Your task to perform on an android device: find snoozed emails in the gmail app Image 0: 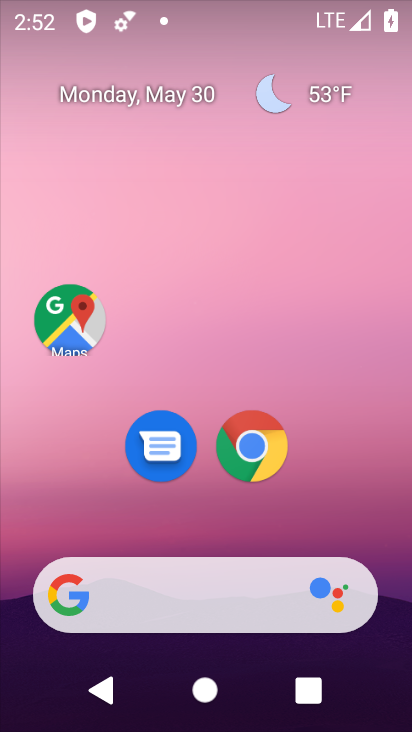
Step 0: drag from (338, 499) to (178, 47)
Your task to perform on an android device: find snoozed emails in the gmail app Image 1: 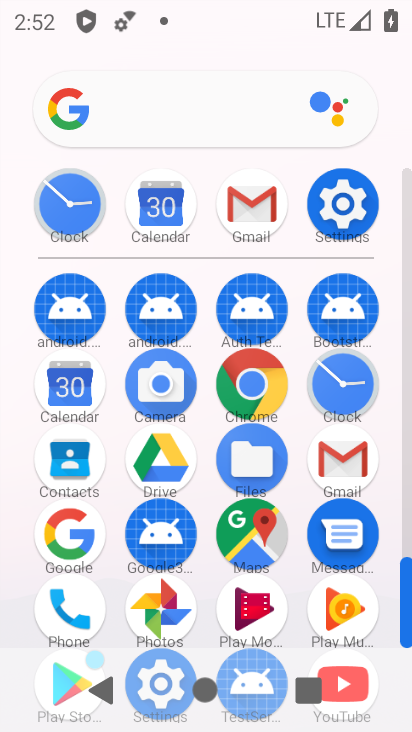
Step 1: click (250, 206)
Your task to perform on an android device: find snoozed emails in the gmail app Image 2: 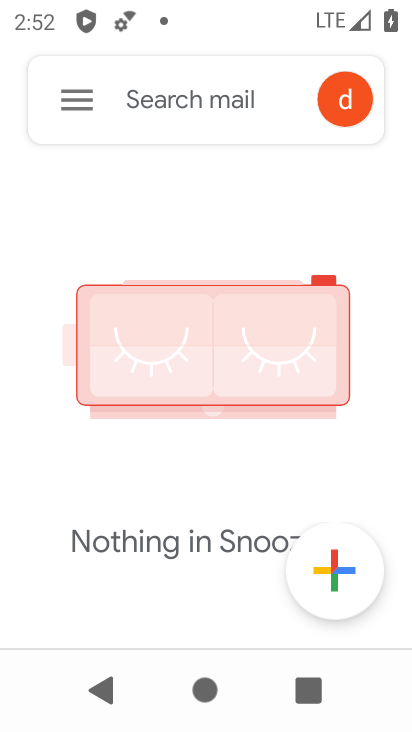
Step 2: click (79, 108)
Your task to perform on an android device: find snoozed emails in the gmail app Image 3: 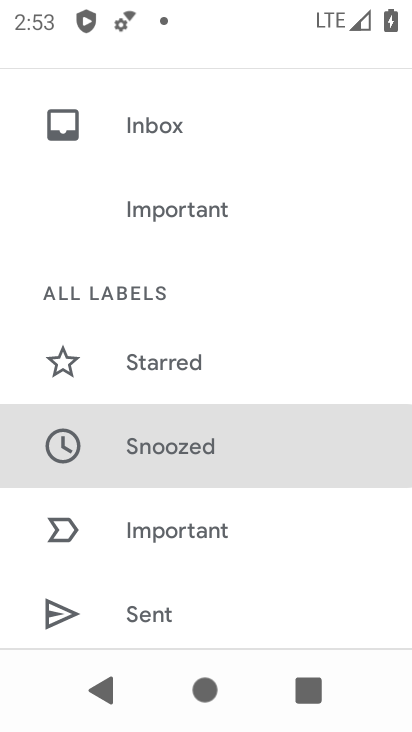
Step 3: click (137, 413)
Your task to perform on an android device: find snoozed emails in the gmail app Image 4: 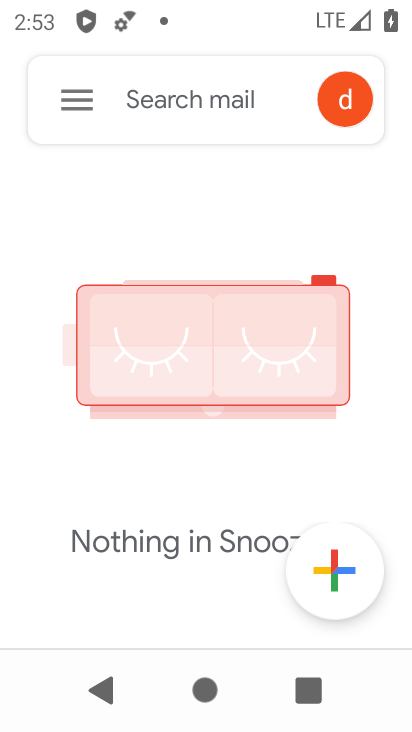
Step 4: click (82, 105)
Your task to perform on an android device: find snoozed emails in the gmail app Image 5: 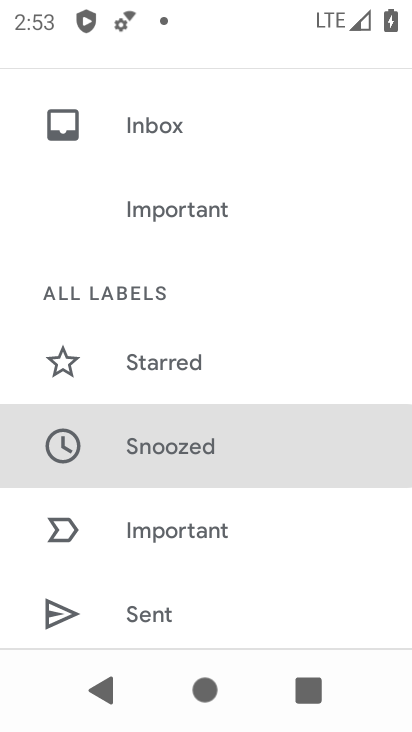
Step 5: click (182, 122)
Your task to perform on an android device: find snoozed emails in the gmail app Image 6: 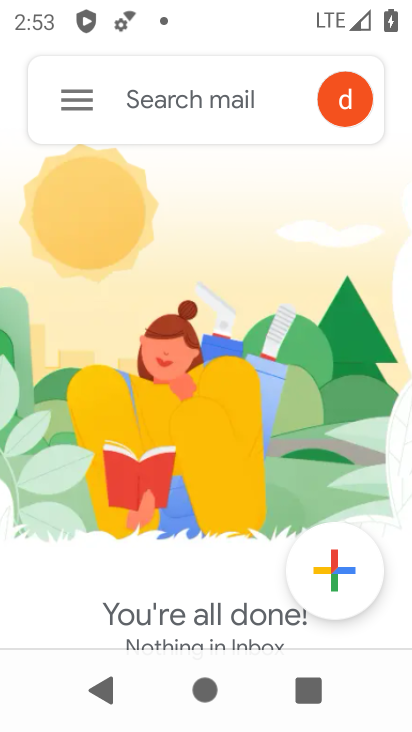
Step 6: click (88, 111)
Your task to perform on an android device: find snoozed emails in the gmail app Image 7: 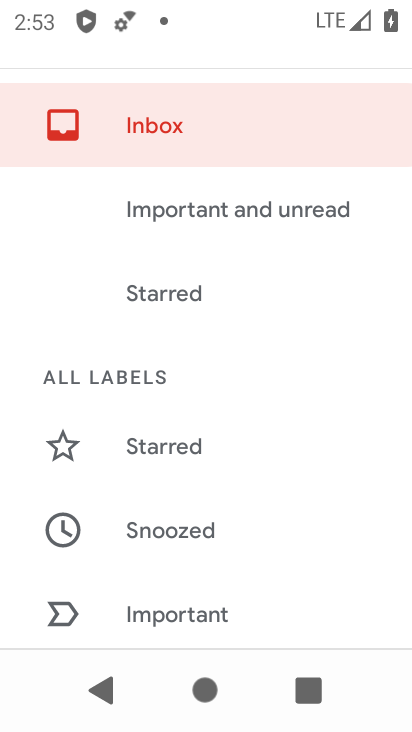
Step 7: drag from (205, 489) to (204, 387)
Your task to perform on an android device: find snoozed emails in the gmail app Image 8: 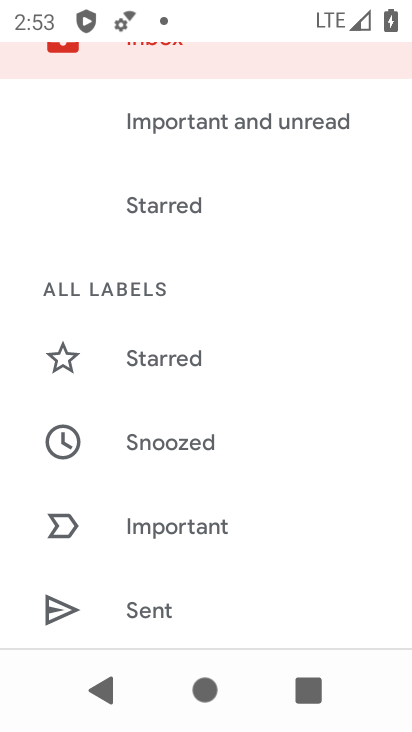
Step 8: drag from (178, 534) to (192, 450)
Your task to perform on an android device: find snoozed emails in the gmail app Image 9: 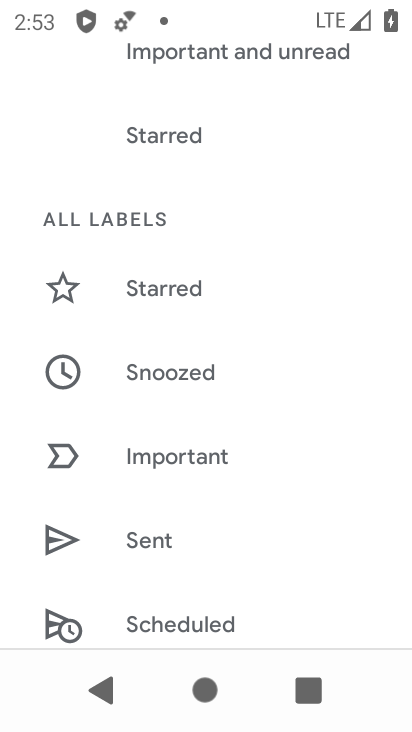
Step 9: drag from (162, 553) to (186, 462)
Your task to perform on an android device: find snoozed emails in the gmail app Image 10: 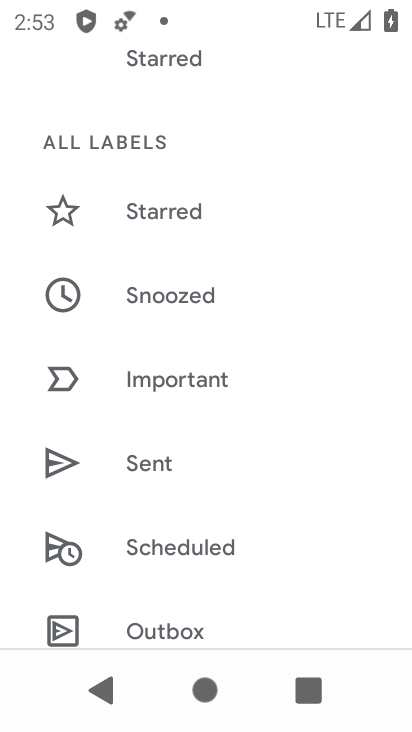
Step 10: drag from (161, 586) to (190, 499)
Your task to perform on an android device: find snoozed emails in the gmail app Image 11: 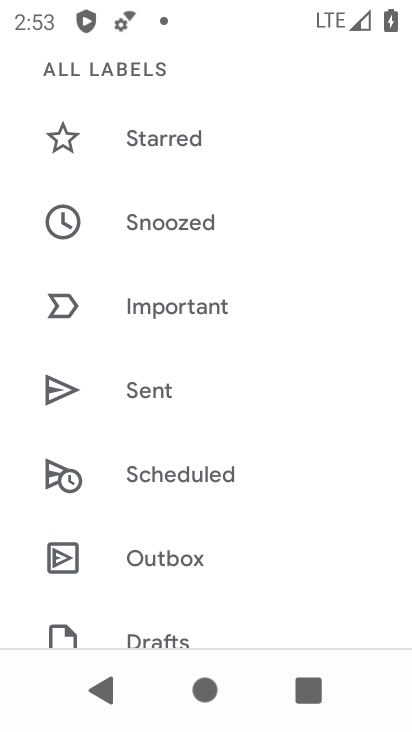
Step 11: drag from (150, 624) to (190, 520)
Your task to perform on an android device: find snoozed emails in the gmail app Image 12: 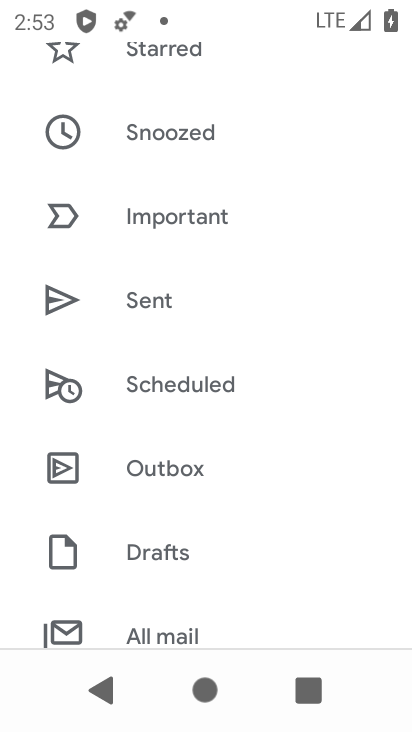
Step 12: drag from (171, 591) to (199, 508)
Your task to perform on an android device: find snoozed emails in the gmail app Image 13: 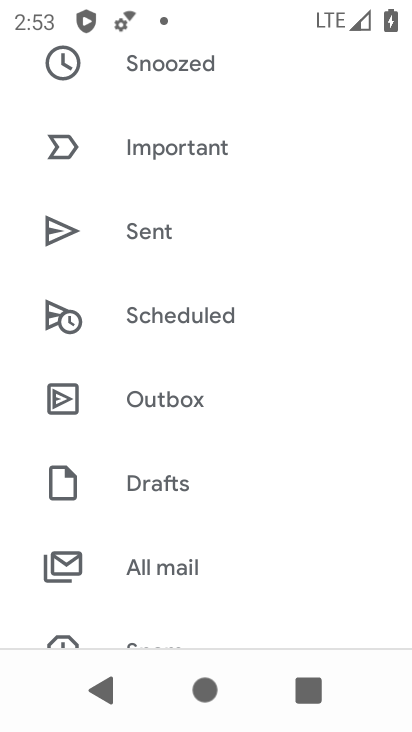
Step 13: click (207, 560)
Your task to perform on an android device: find snoozed emails in the gmail app Image 14: 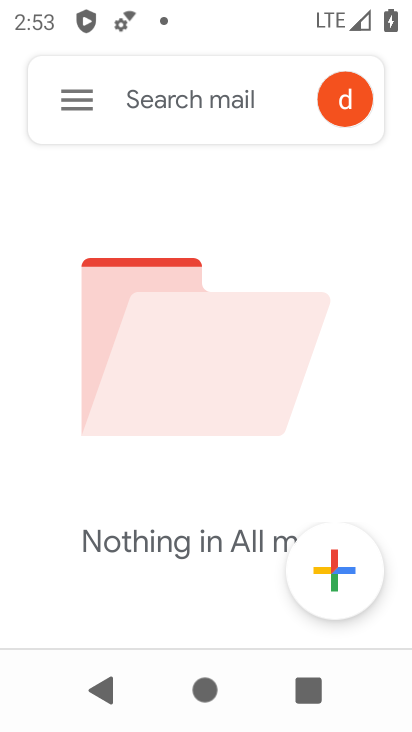
Step 14: task complete